Your task to perform on an android device: set the stopwatch Image 0: 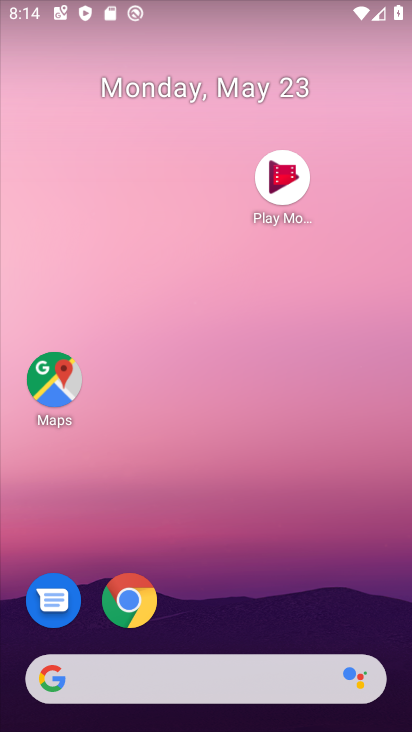
Step 0: click (181, 174)
Your task to perform on an android device: set the stopwatch Image 1: 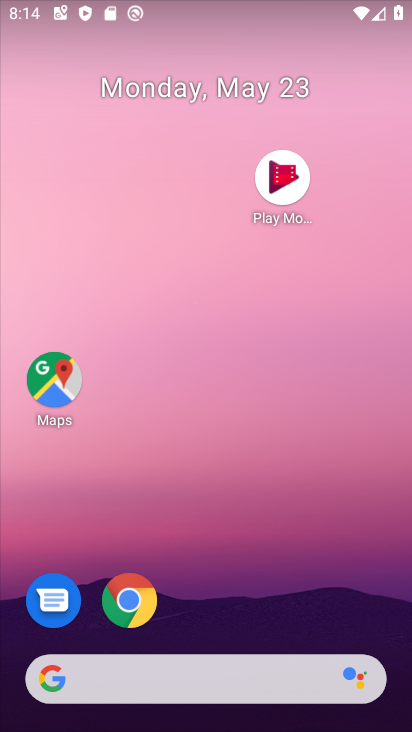
Step 1: drag from (235, 716) to (153, 75)
Your task to perform on an android device: set the stopwatch Image 2: 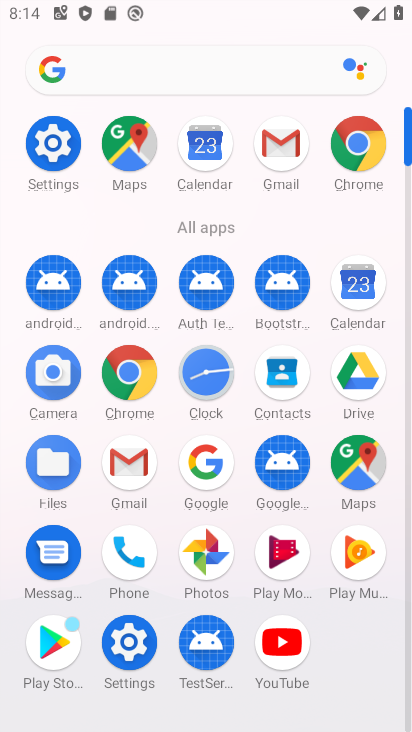
Step 2: click (219, 374)
Your task to perform on an android device: set the stopwatch Image 3: 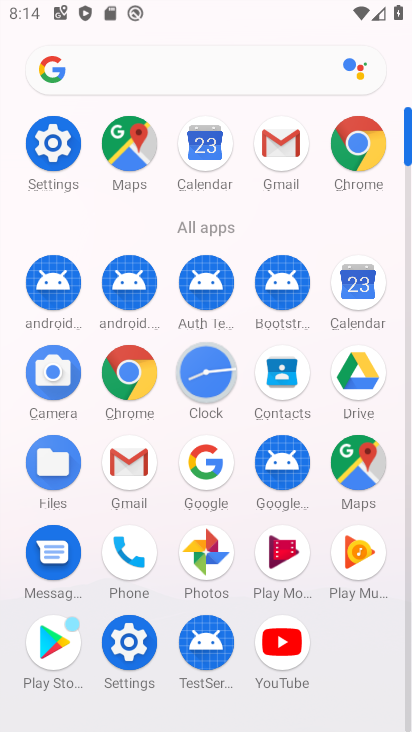
Step 3: click (219, 374)
Your task to perform on an android device: set the stopwatch Image 4: 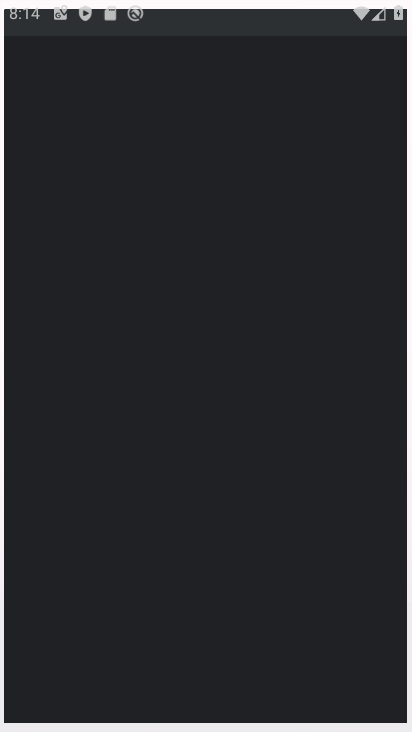
Step 4: click (218, 373)
Your task to perform on an android device: set the stopwatch Image 5: 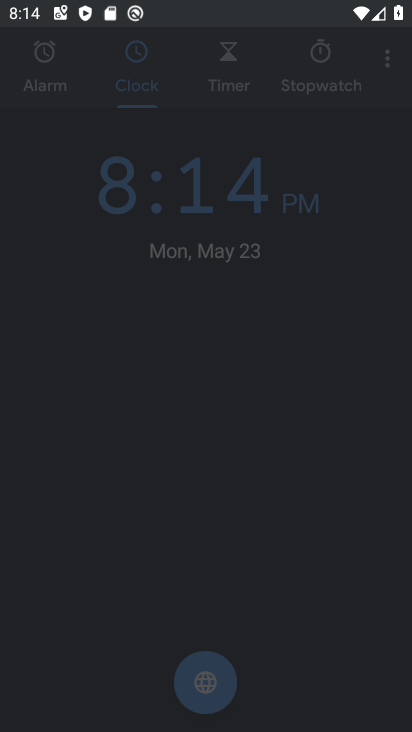
Step 5: click (218, 372)
Your task to perform on an android device: set the stopwatch Image 6: 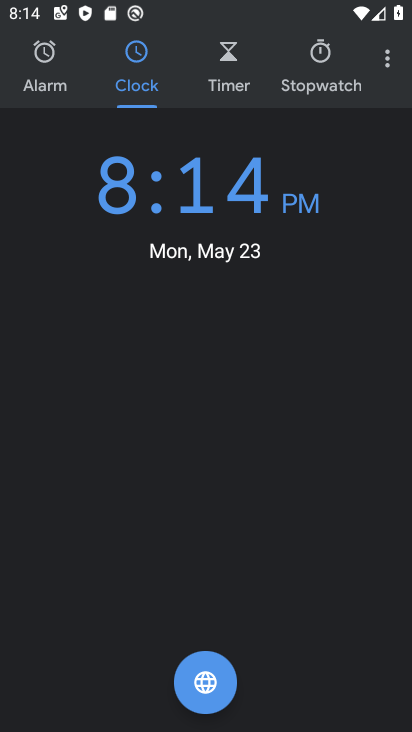
Step 6: click (217, 372)
Your task to perform on an android device: set the stopwatch Image 7: 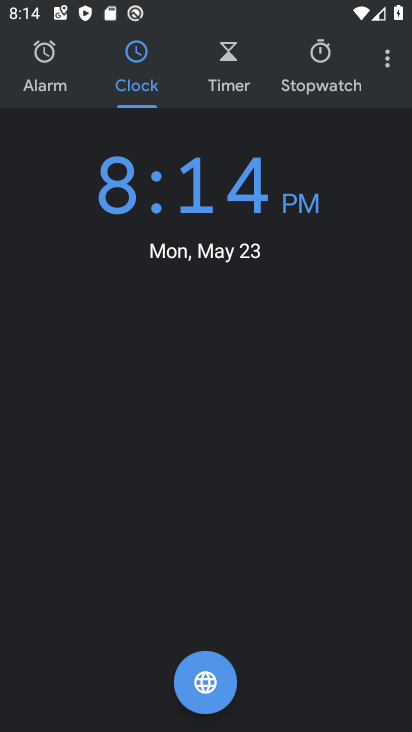
Step 7: click (319, 72)
Your task to perform on an android device: set the stopwatch Image 8: 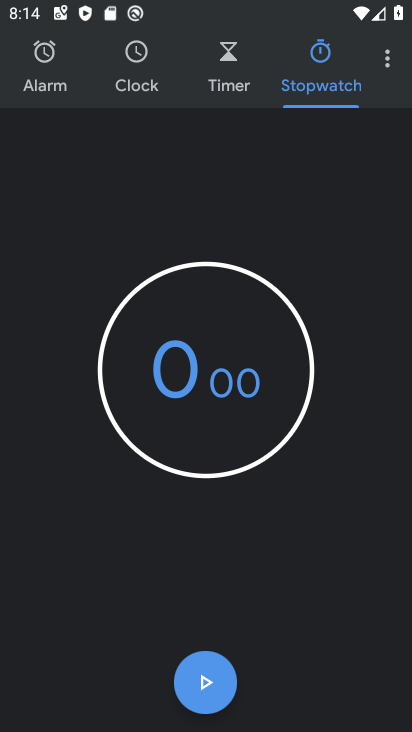
Step 8: click (205, 661)
Your task to perform on an android device: set the stopwatch Image 9: 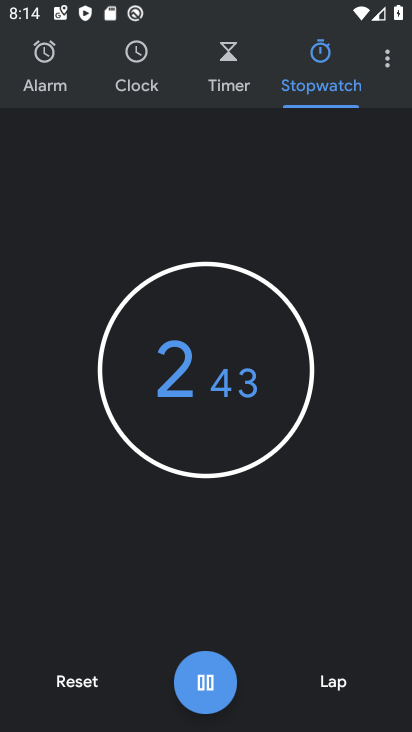
Step 9: click (204, 676)
Your task to perform on an android device: set the stopwatch Image 10: 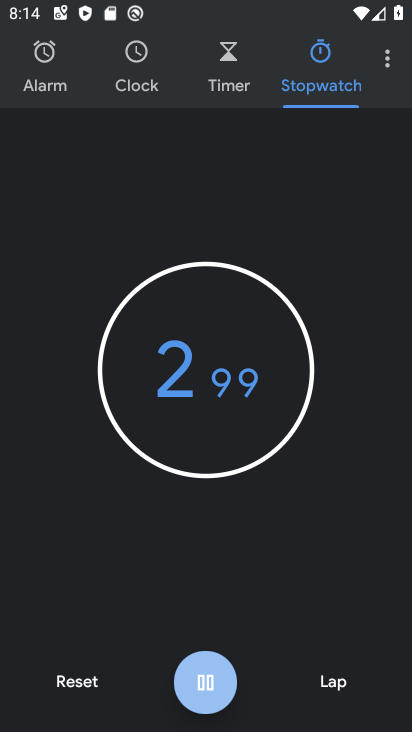
Step 10: click (206, 678)
Your task to perform on an android device: set the stopwatch Image 11: 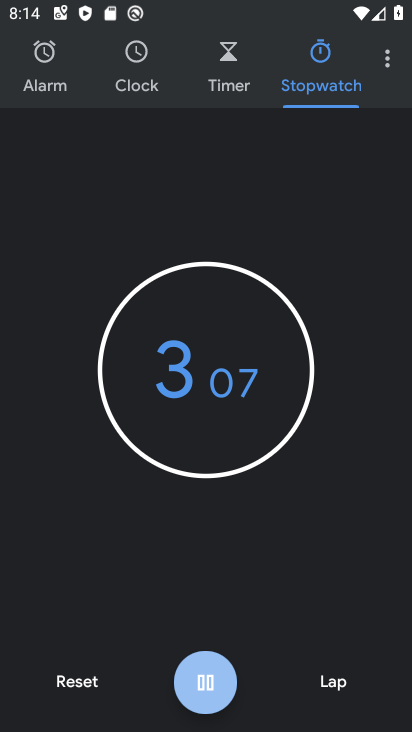
Step 11: click (207, 679)
Your task to perform on an android device: set the stopwatch Image 12: 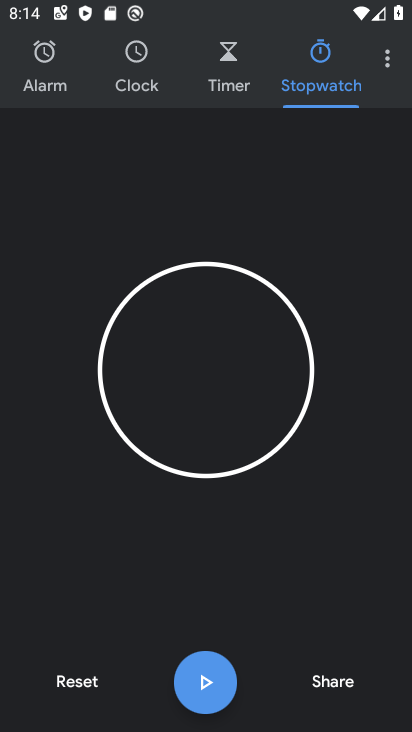
Step 12: task complete